Your task to perform on an android device: Search for sushi restaurants on Maps Image 0: 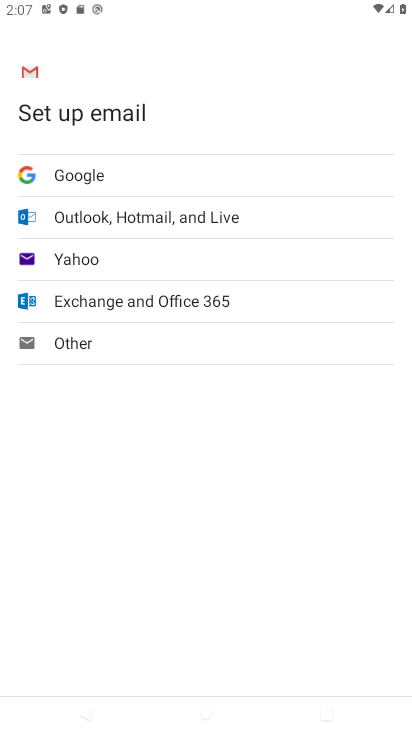
Step 0: press home button
Your task to perform on an android device: Search for sushi restaurants on Maps Image 1: 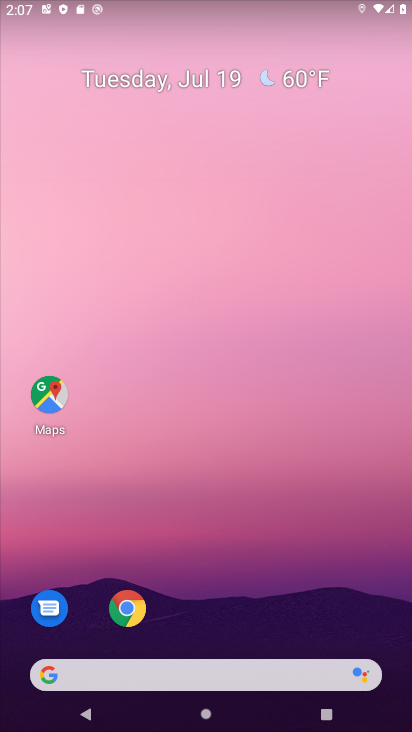
Step 1: drag from (302, 605) to (232, 5)
Your task to perform on an android device: Search for sushi restaurants on Maps Image 2: 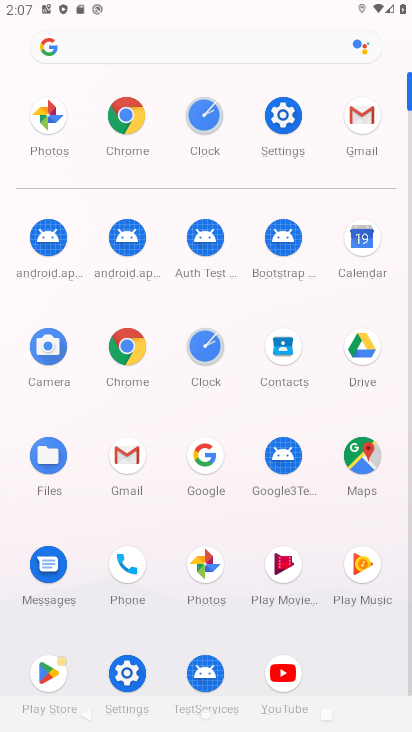
Step 2: click (349, 463)
Your task to perform on an android device: Search for sushi restaurants on Maps Image 3: 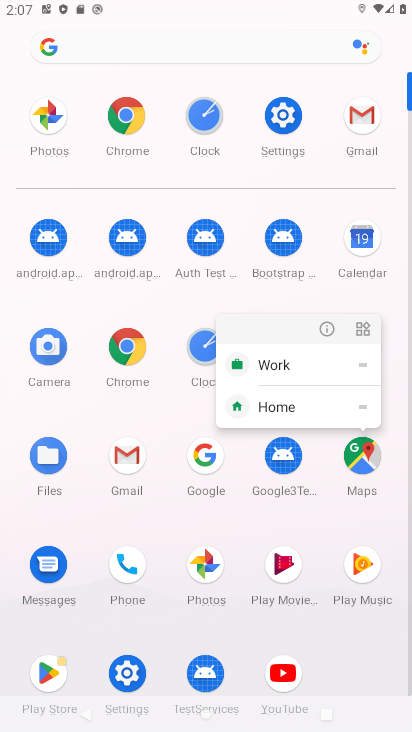
Step 3: click (359, 470)
Your task to perform on an android device: Search for sushi restaurants on Maps Image 4: 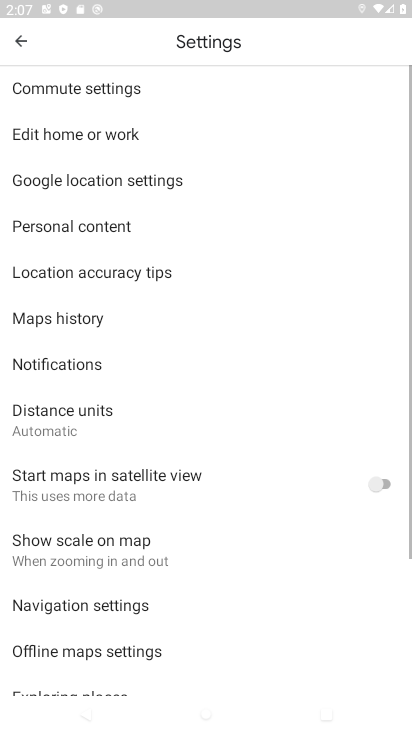
Step 4: click (21, 45)
Your task to perform on an android device: Search for sushi restaurants on Maps Image 5: 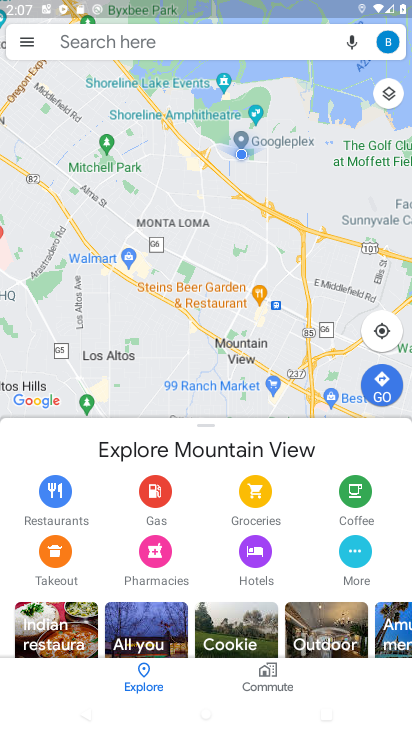
Step 5: click (139, 44)
Your task to perform on an android device: Search for sushi restaurants on Maps Image 6: 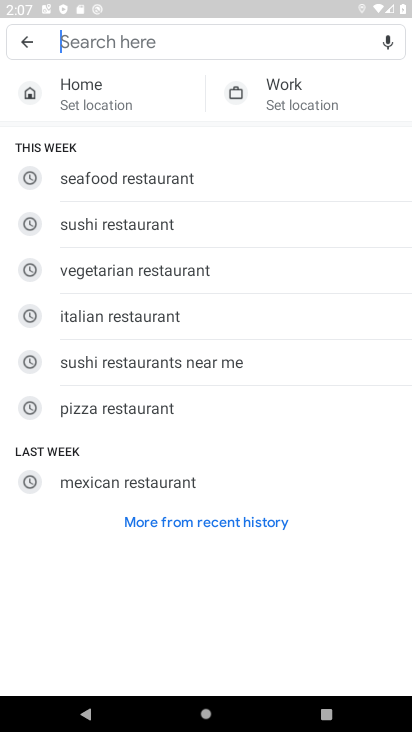
Step 6: click (146, 228)
Your task to perform on an android device: Search for sushi restaurants on Maps Image 7: 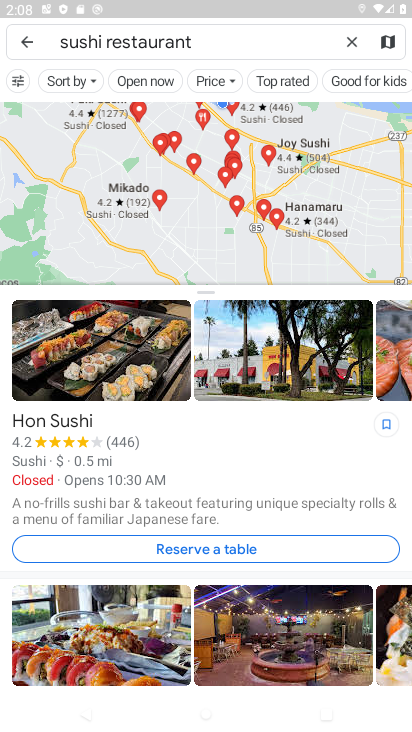
Step 7: task complete